Your task to perform on an android device: Go to wifi settings Image 0: 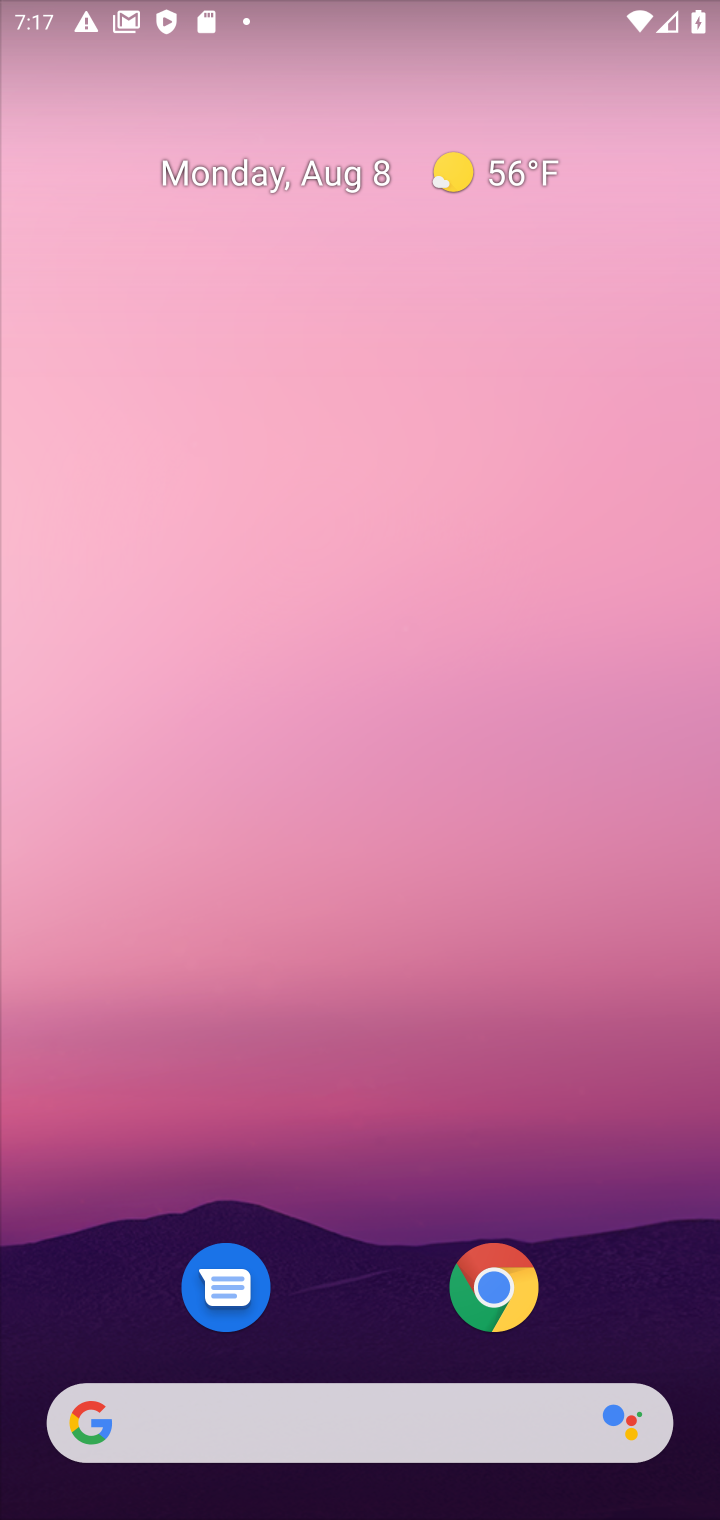
Step 0: drag from (411, 699) to (469, 202)
Your task to perform on an android device: Go to wifi settings Image 1: 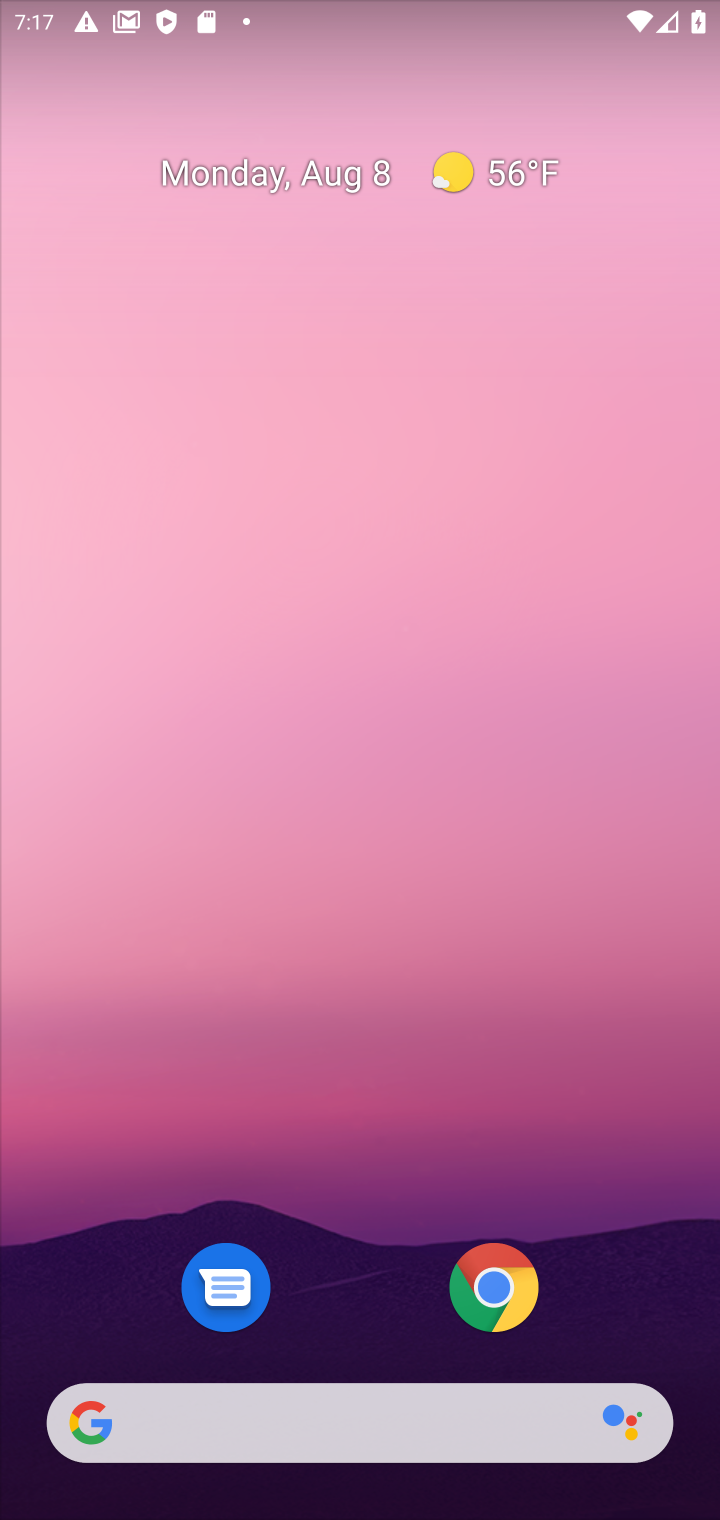
Step 1: drag from (364, 1182) to (408, 596)
Your task to perform on an android device: Go to wifi settings Image 2: 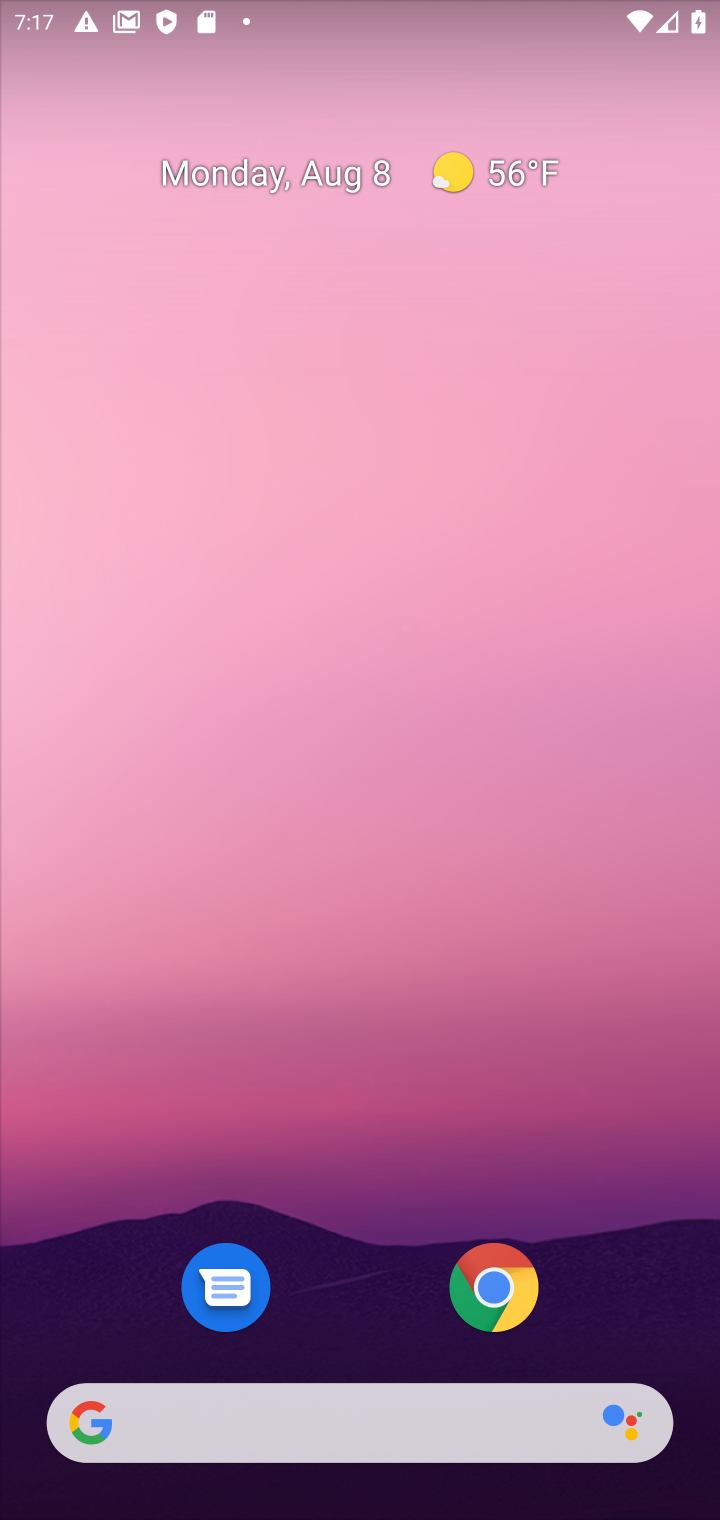
Step 2: drag from (361, 1187) to (357, 479)
Your task to perform on an android device: Go to wifi settings Image 3: 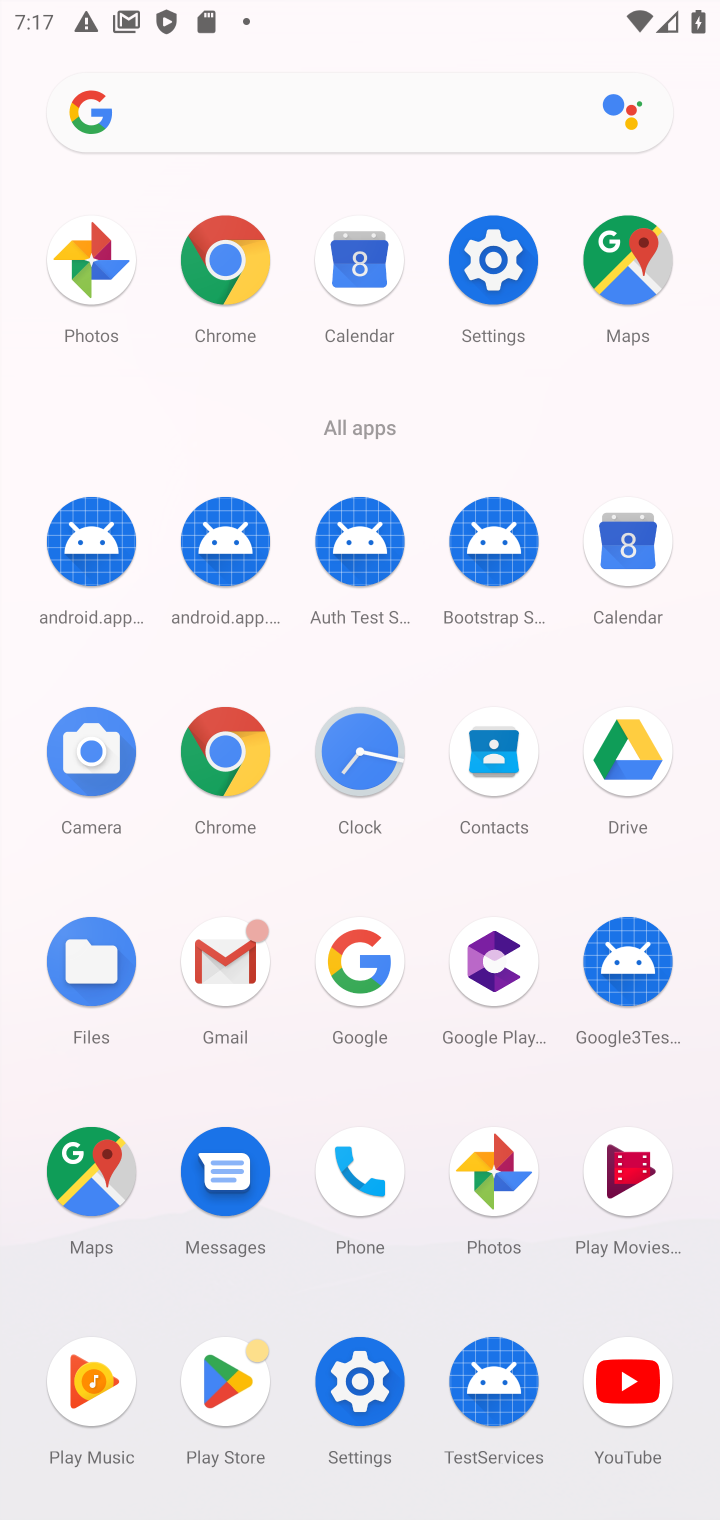
Step 3: click (489, 291)
Your task to perform on an android device: Go to wifi settings Image 4: 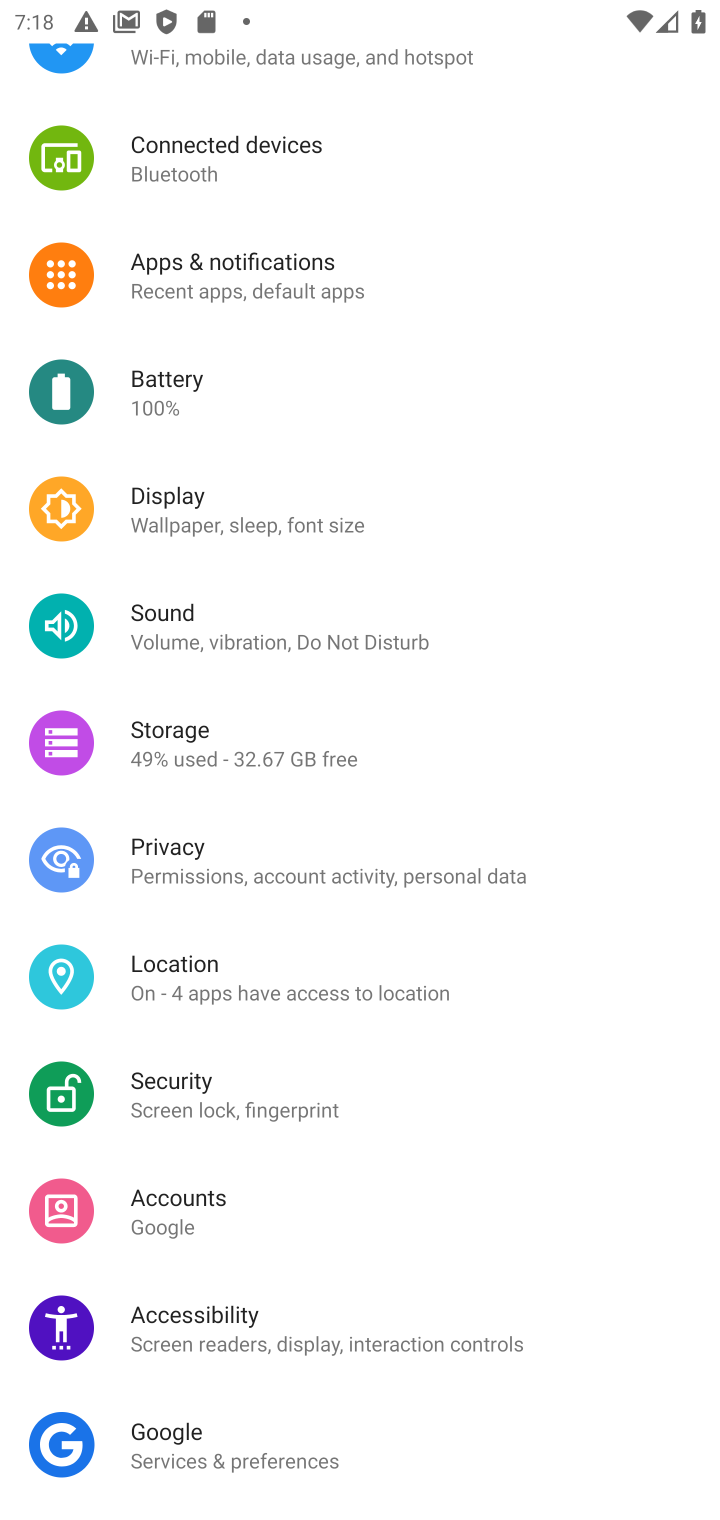
Step 4: task complete